Your task to perform on an android device: check out phone information Image 0: 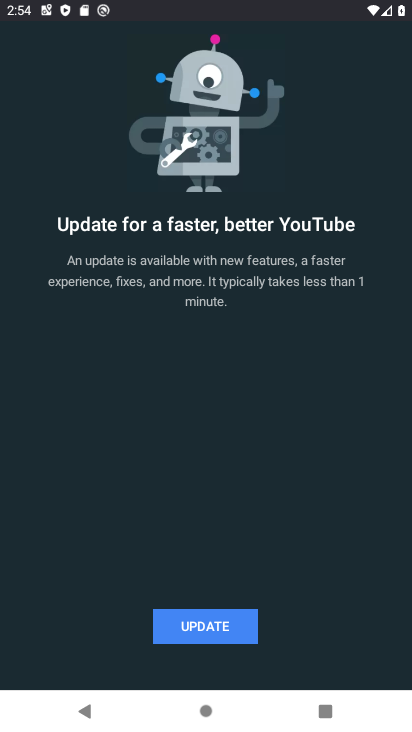
Step 0: press home button
Your task to perform on an android device: check out phone information Image 1: 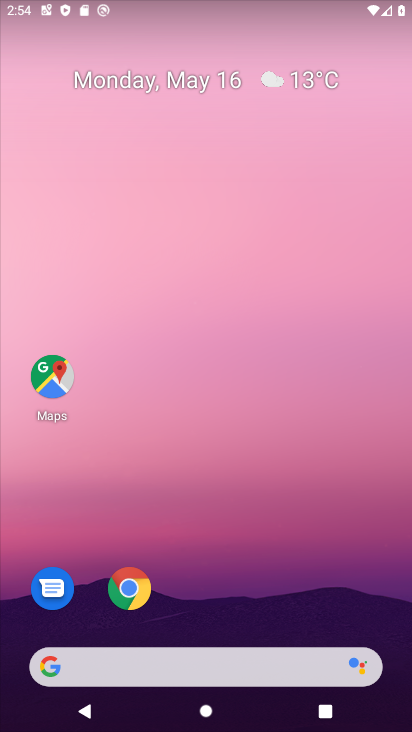
Step 1: drag from (252, 633) to (403, 14)
Your task to perform on an android device: check out phone information Image 2: 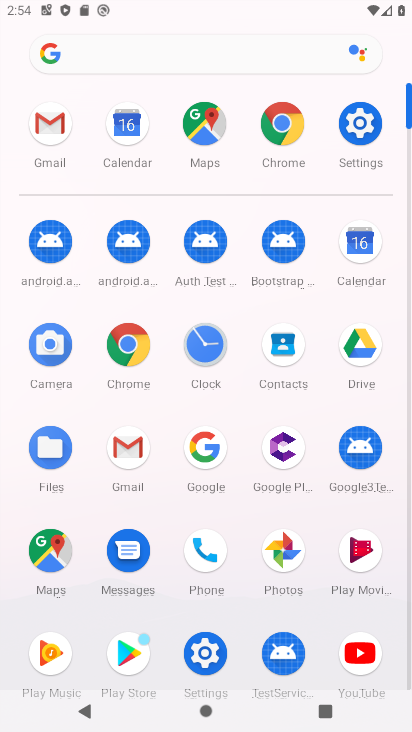
Step 2: click (361, 116)
Your task to perform on an android device: check out phone information Image 3: 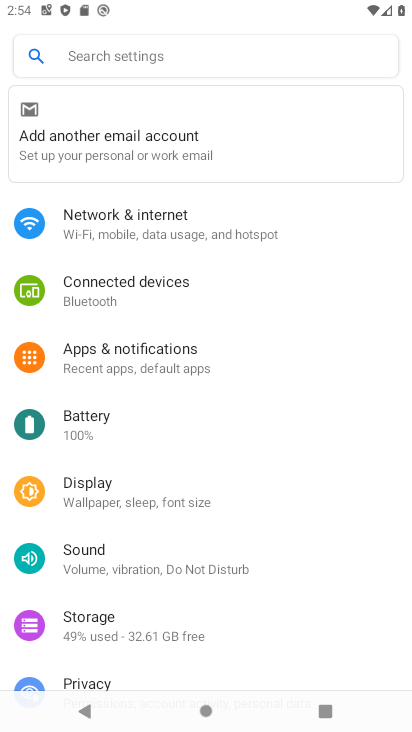
Step 3: drag from (280, 682) to (326, 119)
Your task to perform on an android device: check out phone information Image 4: 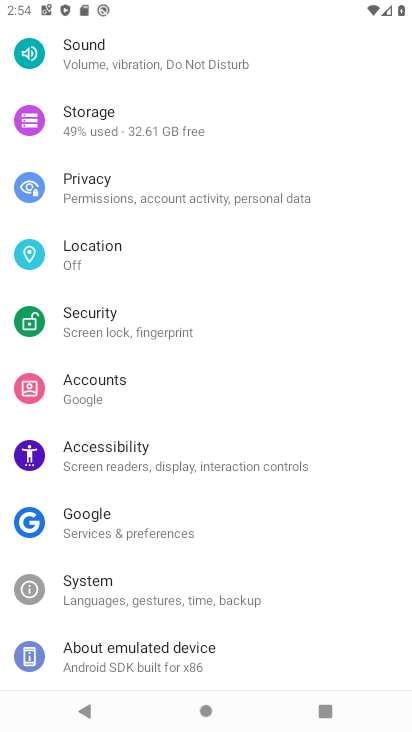
Step 4: click (200, 662)
Your task to perform on an android device: check out phone information Image 5: 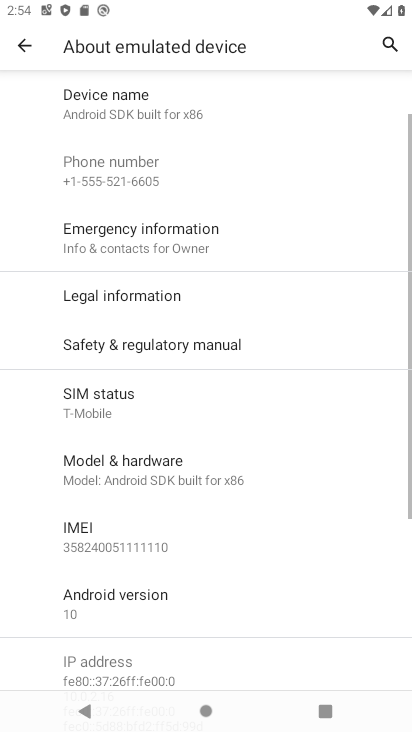
Step 5: task complete